Your task to perform on an android device: turn off improve location accuracy Image 0: 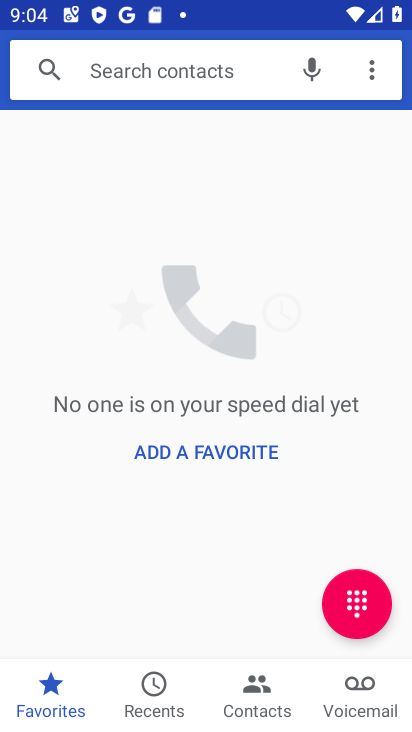
Step 0: press home button
Your task to perform on an android device: turn off improve location accuracy Image 1: 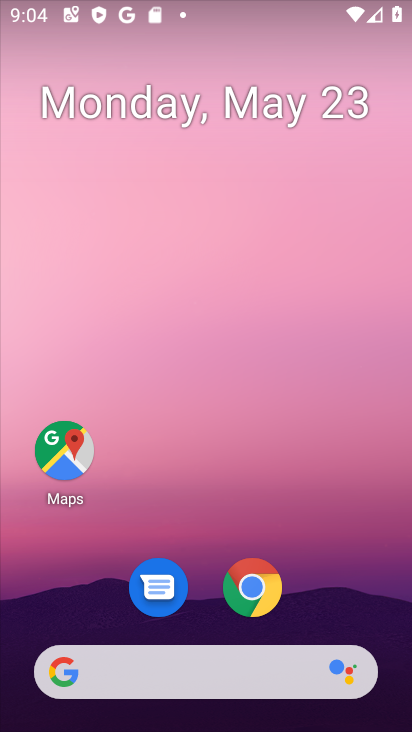
Step 1: drag from (222, 533) to (283, 29)
Your task to perform on an android device: turn off improve location accuracy Image 2: 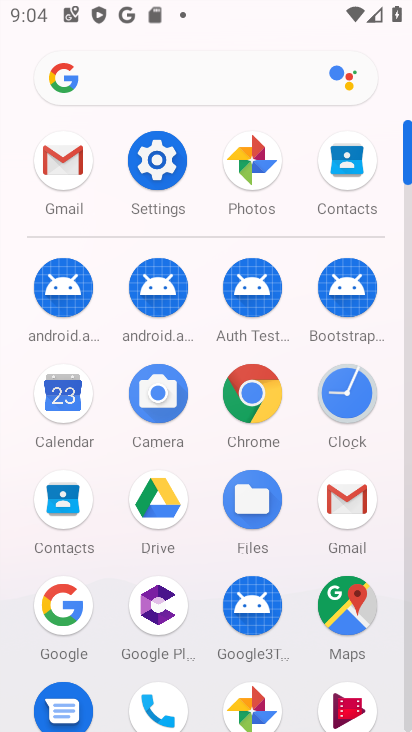
Step 2: click (151, 156)
Your task to perform on an android device: turn off improve location accuracy Image 3: 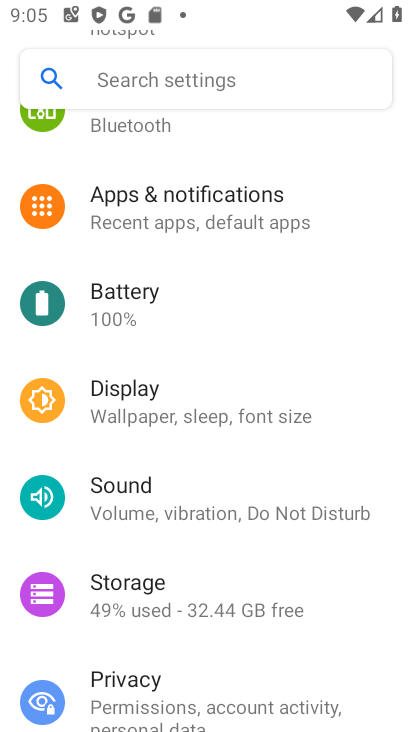
Step 3: drag from (194, 704) to (322, 207)
Your task to perform on an android device: turn off improve location accuracy Image 4: 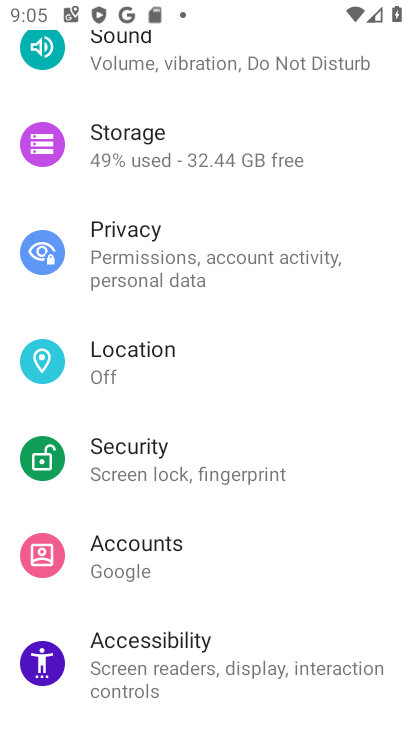
Step 4: click (118, 359)
Your task to perform on an android device: turn off improve location accuracy Image 5: 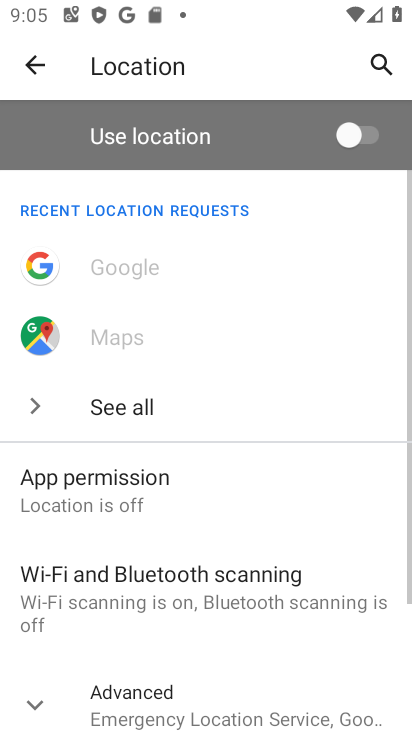
Step 5: click (158, 684)
Your task to perform on an android device: turn off improve location accuracy Image 6: 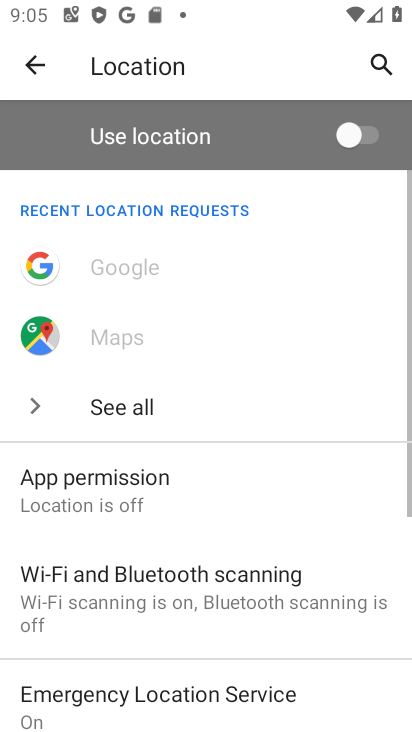
Step 6: drag from (165, 663) to (234, 146)
Your task to perform on an android device: turn off improve location accuracy Image 7: 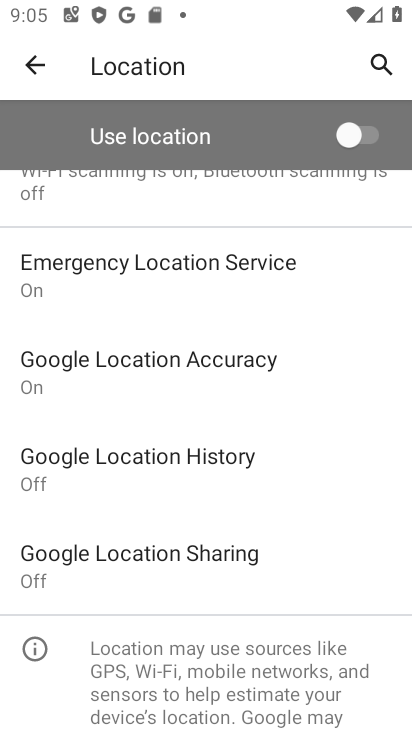
Step 7: click (181, 350)
Your task to perform on an android device: turn off improve location accuracy Image 8: 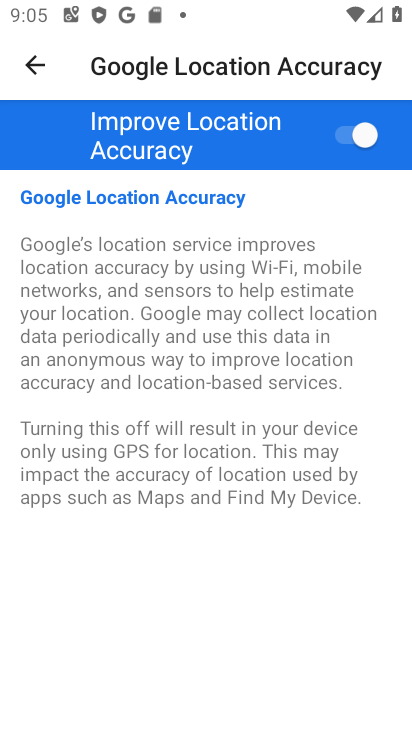
Step 8: click (357, 136)
Your task to perform on an android device: turn off improve location accuracy Image 9: 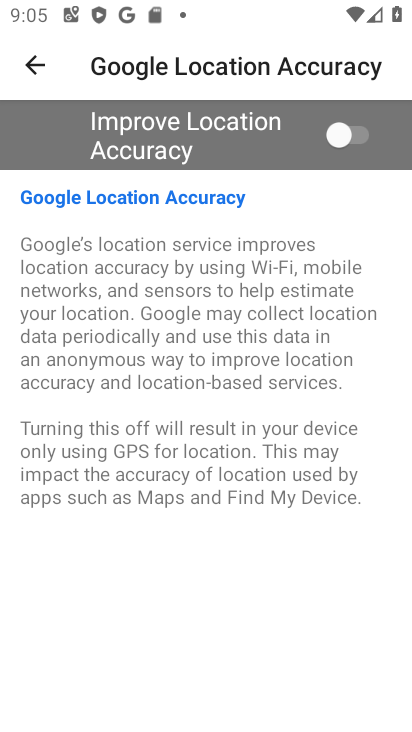
Step 9: task complete